Your task to perform on an android device: open chrome privacy settings Image 0: 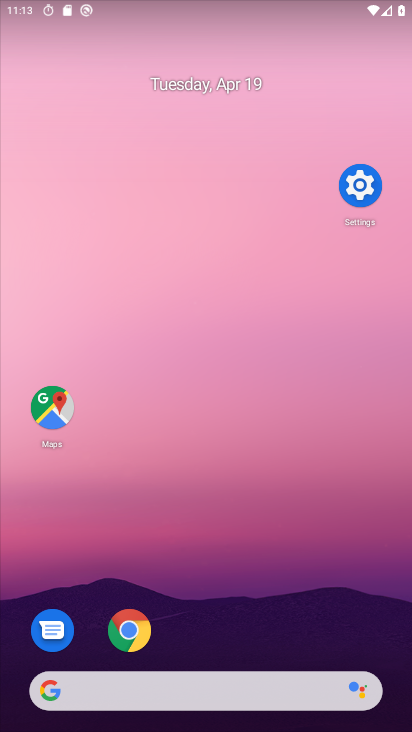
Step 0: drag from (278, 563) to (235, 168)
Your task to perform on an android device: open chrome privacy settings Image 1: 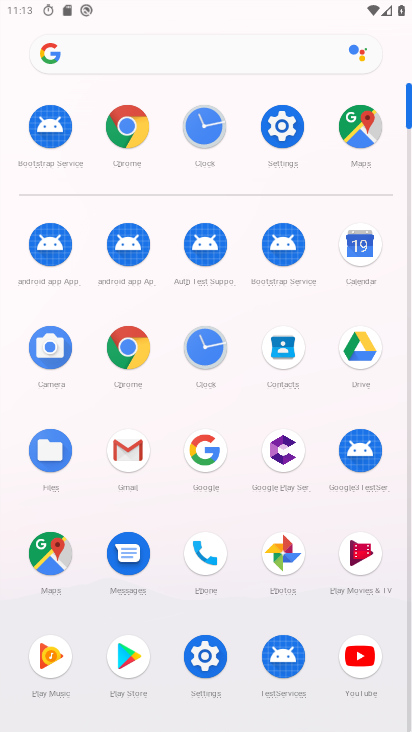
Step 1: click (144, 132)
Your task to perform on an android device: open chrome privacy settings Image 2: 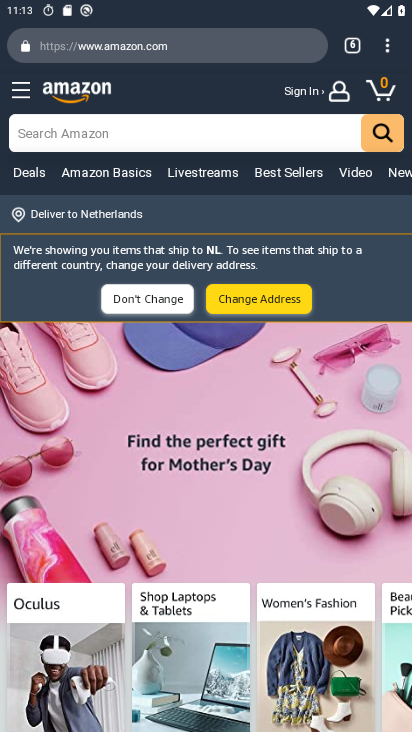
Step 2: click (382, 47)
Your task to perform on an android device: open chrome privacy settings Image 3: 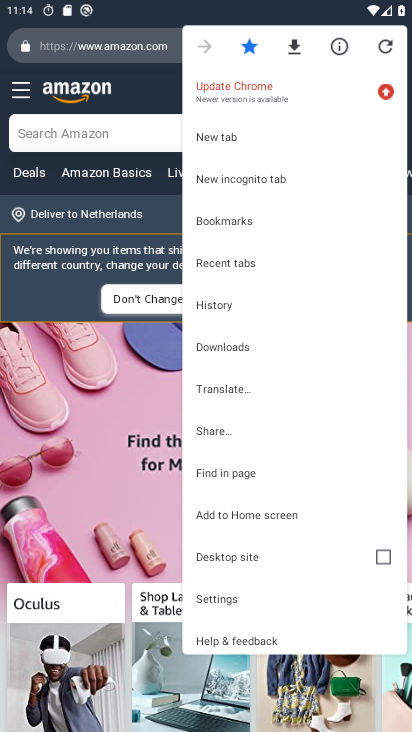
Step 3: click (271, 603)
Your task to perform on an android device: open chrome privacy settings Image 4: 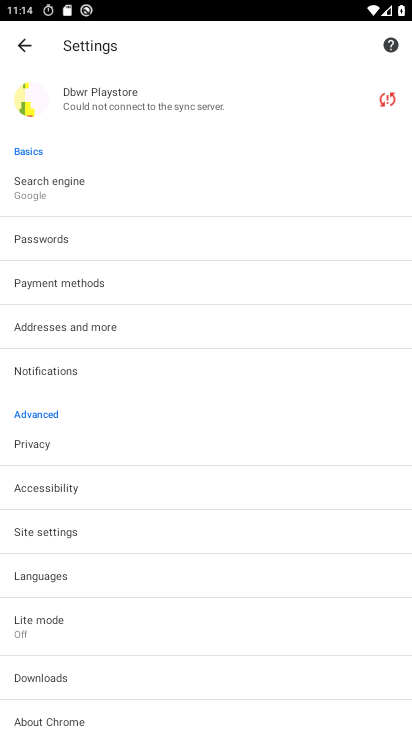
Step 4: drag from (204, 595) to (205, 550)
Your task to perform on an android device: open chrome privacy settings Image 5: 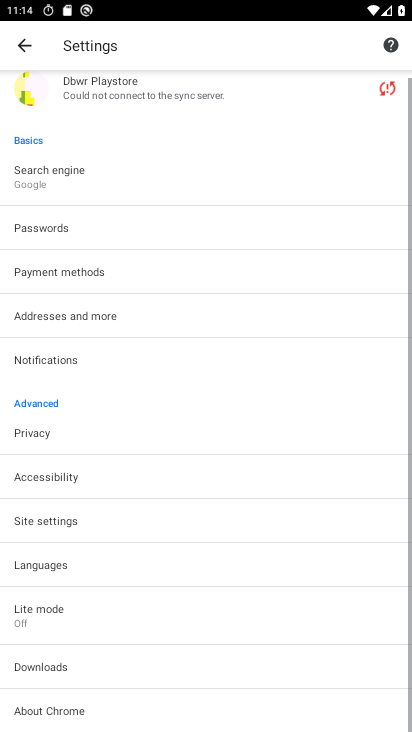
Step 5: click (212, 382)
Your task to perform on an android device: open chrome privacy settings Image 6: 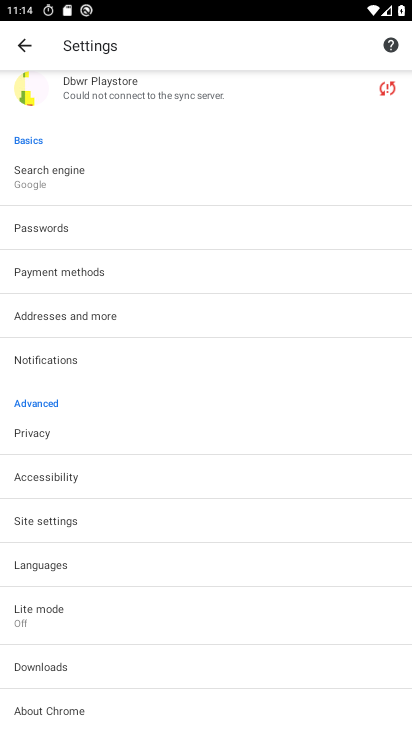
Step 6: click (128, 430)
Your task to perform on an android device: open chrome privacy settings Image 7: 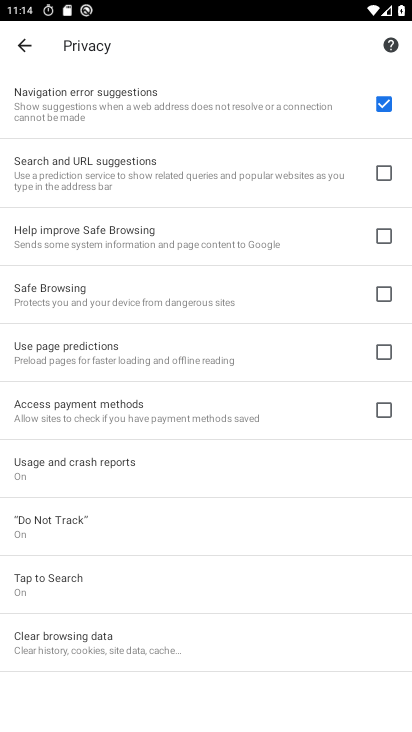
Step 7: task complete